Your task to perform on an android device: Go to calendar. Show me events next week Image 0: 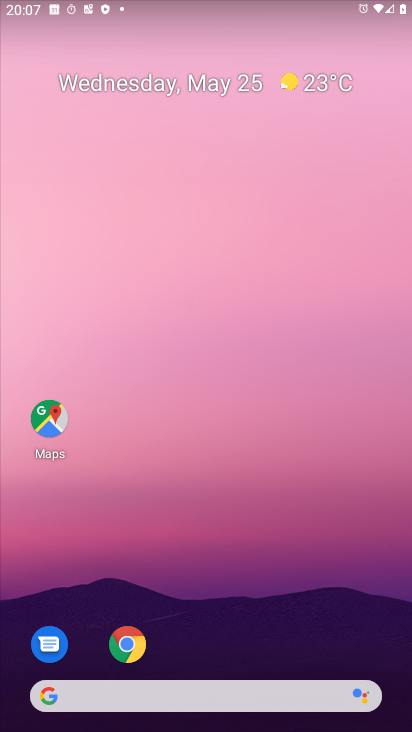
Step 0: drag from (227, 713) to (162, 67)
Your task to perform on an android device: Go to calendar. Show me events next week Image 1: 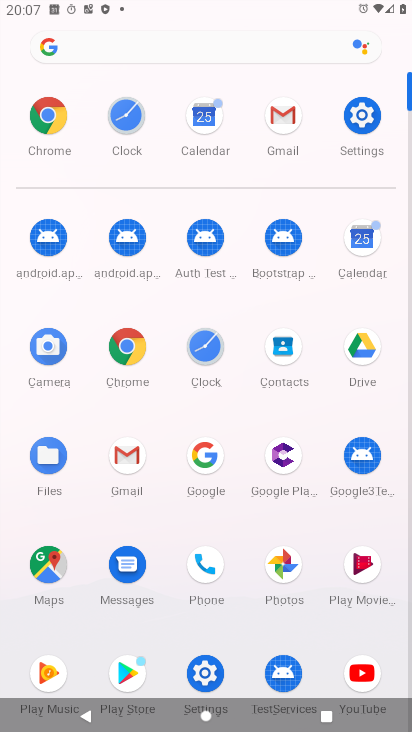
Step 1: click (361, 236)
Your task to perform on an android device: Go to calendar. Show me events next week Image 2: 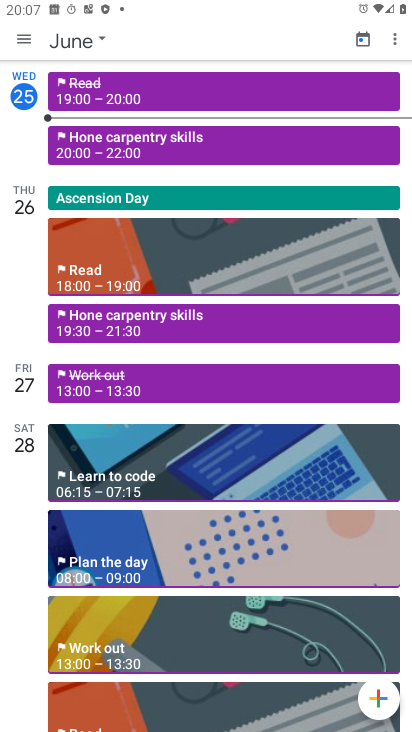
Step 2: click (31, 38)
Your task to perform on an android device: Go to calendar. Show me events next week Image 3: 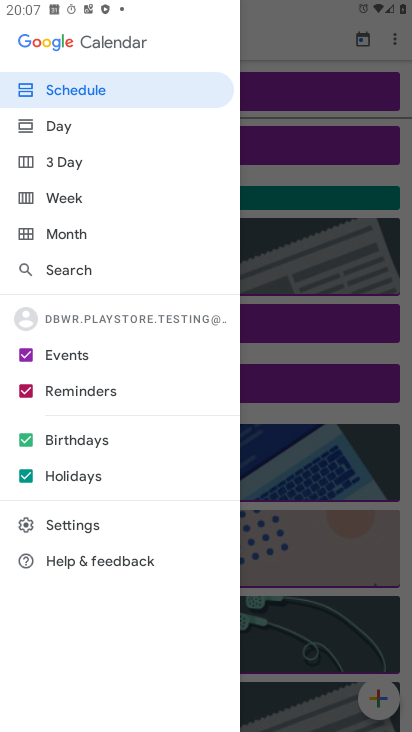
Step 3: click (64, 234)
Your task to perform on an android device: Go to calendar. Show me events next week Image 4: 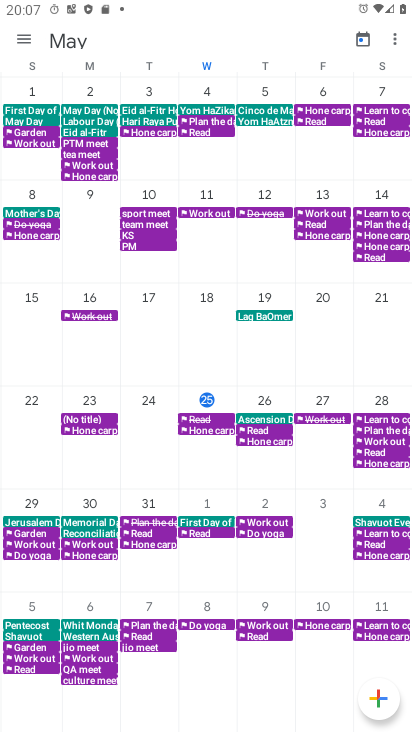
Step 4: click (80, 515)
Your task to perform on an android device: Go to calendar. Show me events next week Image 5: 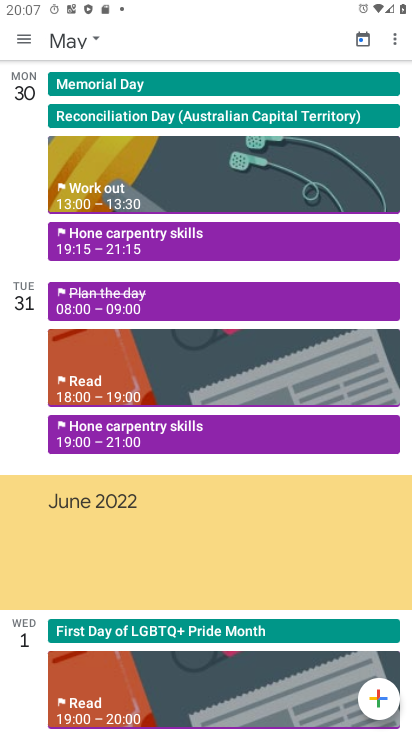
Step 5: task complete